Your task to perform on an android device: turn off airplane mode Image 0: 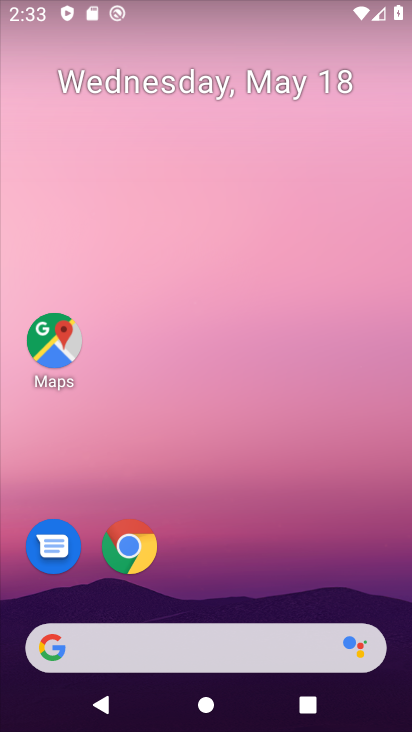
Step 0: drag from (237, 717) to (240, 218)
Your task to perform on an android device: turn off airplane mode Image 1: 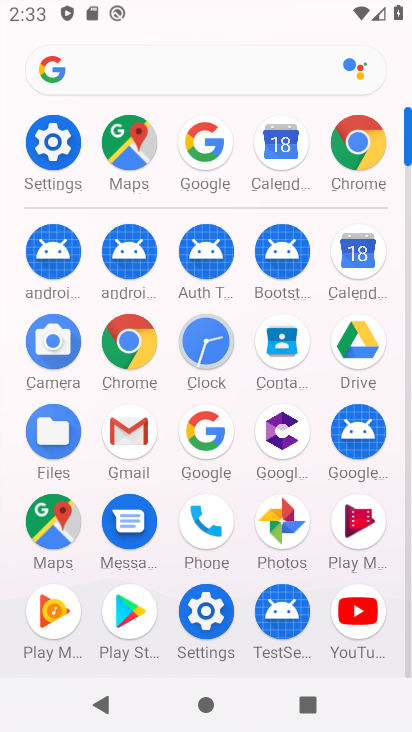
Step 1: click (48, 140)
Your task to perform on an android device: turn off airplane mode Image 2: 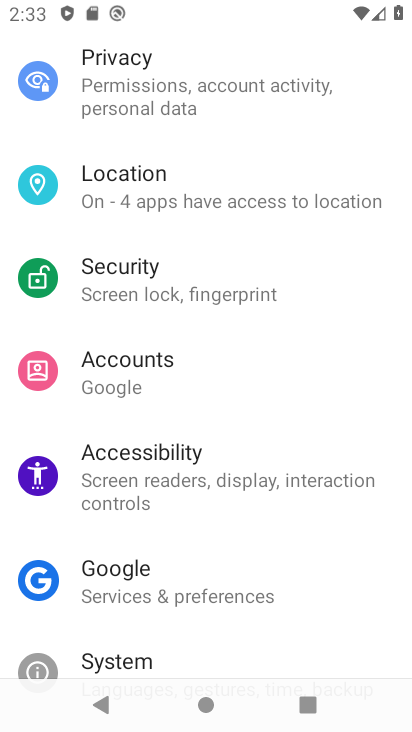
Step 2: drag from (211, 151) to (205, 504)
Your task to perform on an android device: turn off airplane mode Image 3: 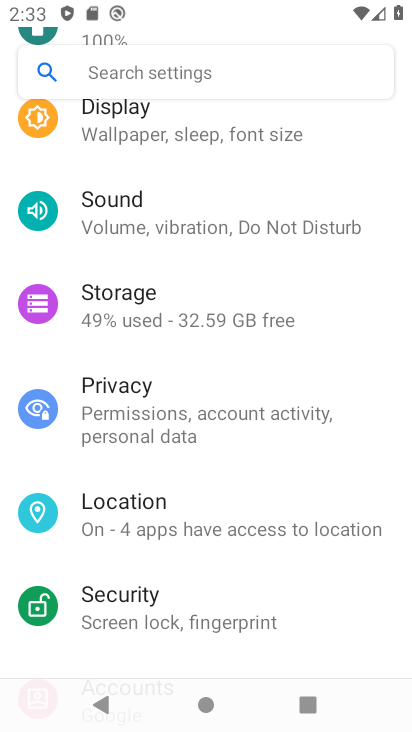
Step 3: drag from (175, 143) to (177, 547)
Your task to perform on an android device: turn off airplane mode Image 4: 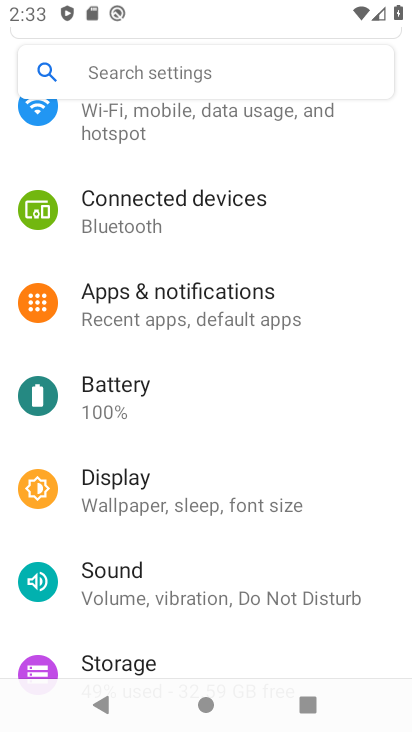
Step 4: drag from (168, 192) to (166, 585)
Your task to perform on an android device: turn off airplane mode Image 5: 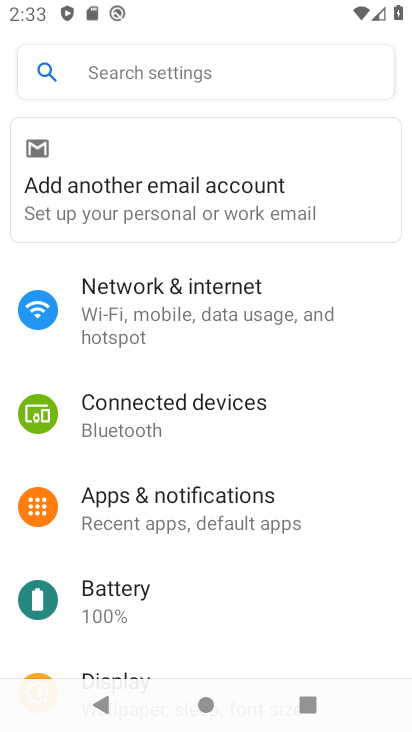
Step 5: click (145, 305)
Your task to perform on an android device: turn off airplane mode Image 6: 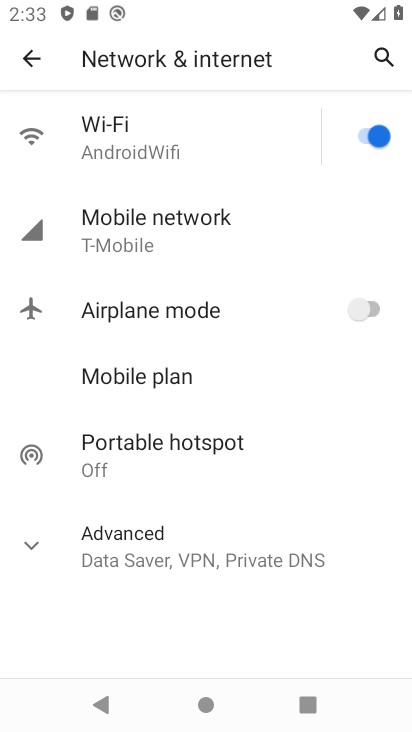
Step 6: task complete